Your task to perform on an android device: Open internet settings Image 0: 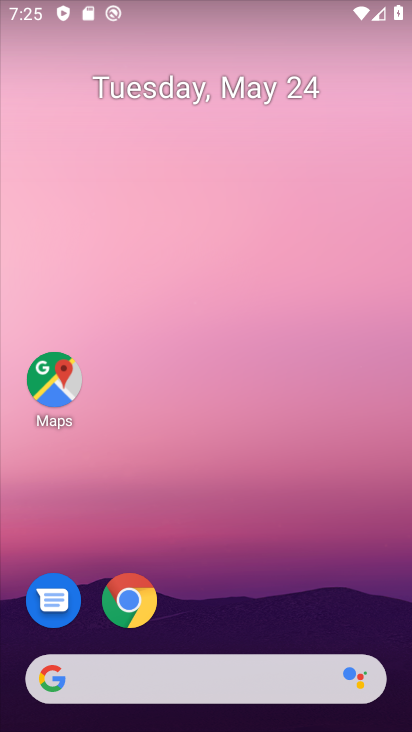
Step 0: drag from (279, 472) to (329, 26)
Your task to perform on an android device: Open internet settings Image 1: 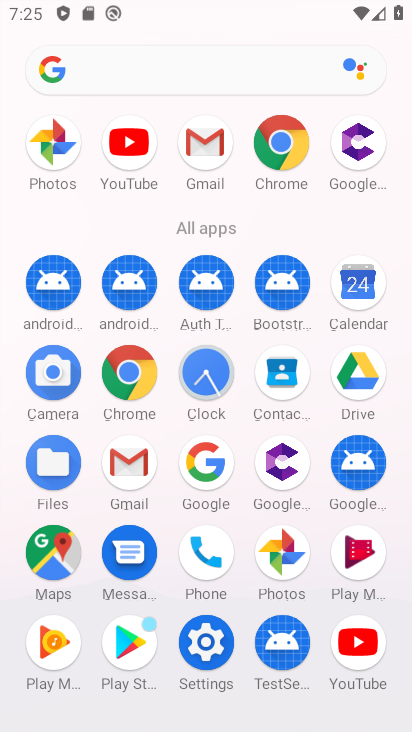
Step 1: click (217, 654)
Your task to perform on an android device: Open internet settings Image 2: 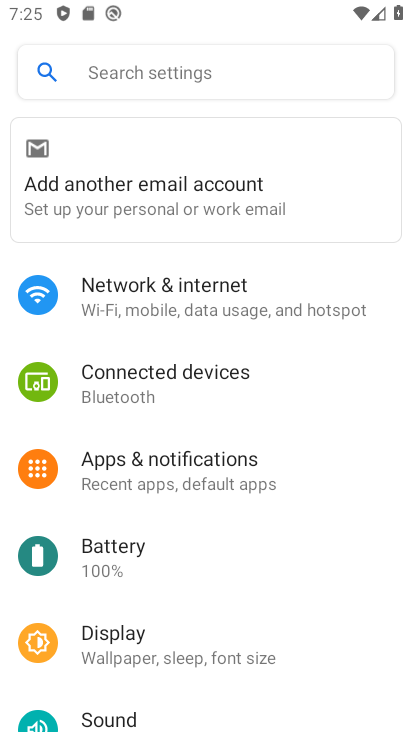
Step 2: click (168, 262)
Your task to perform on an android device: Open internet settings Image 3: 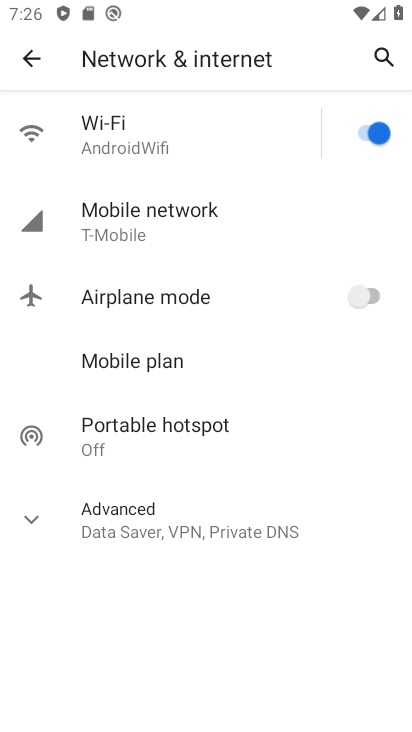
Step 3: task complete